Your task to perform on an android device: Open Google Image 0: 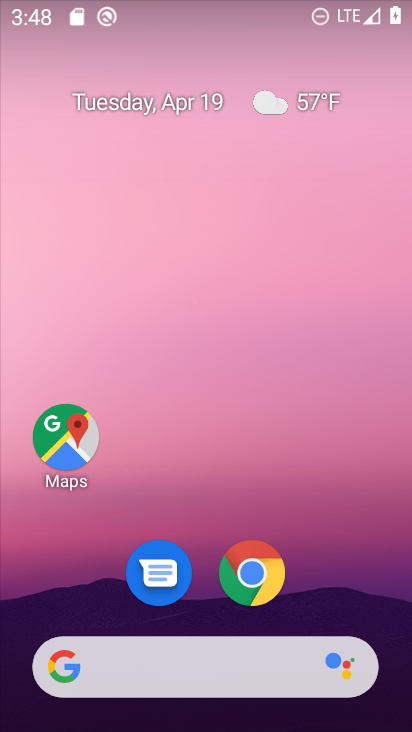
Step 0: drag from (376, 607) to (316, 28)
Your task to perform on an android device: Open Google Image 1: 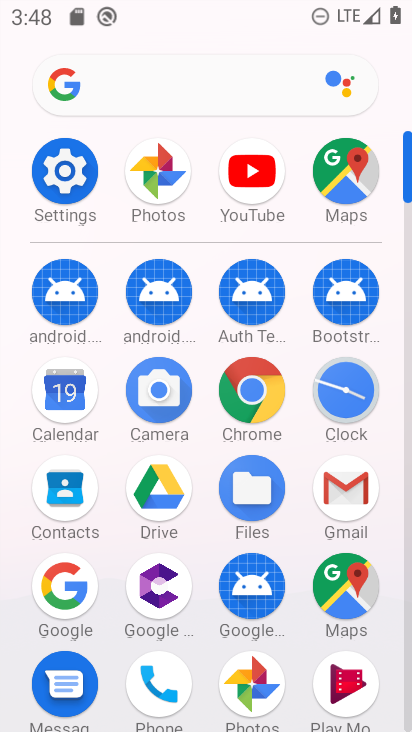
Step 1: click (66, 595)
Your task to perform on an android device: Open Google Image 2: 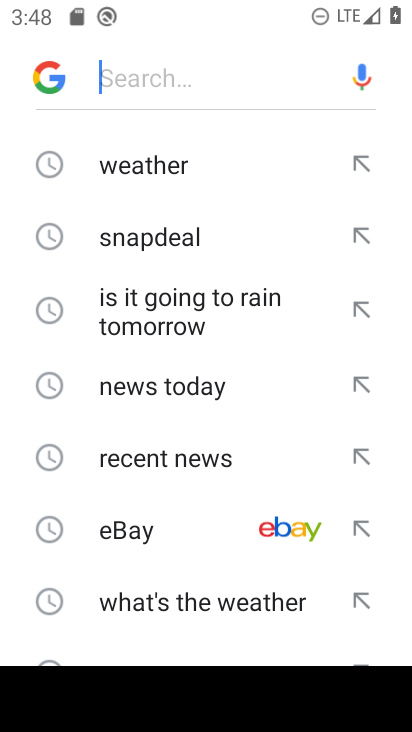
Step 2: task complete